Your task to perform on an android device: snooze an email in the gmail app Image 0: 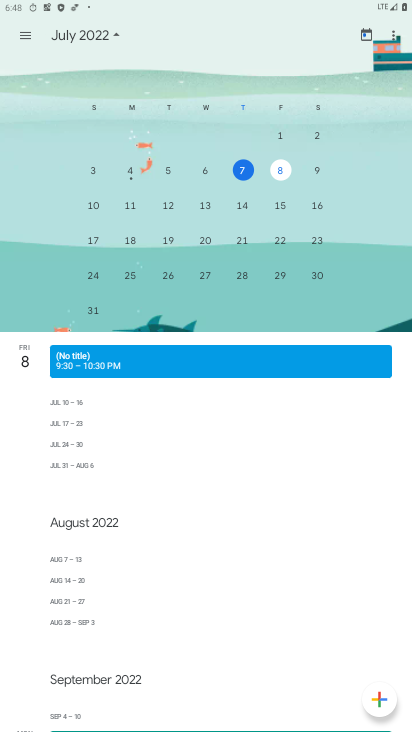
Step 0: drag from (364, 653) to (333, 322)
Your task to perform on an android device: snooze an email in the gmail app Image 1: 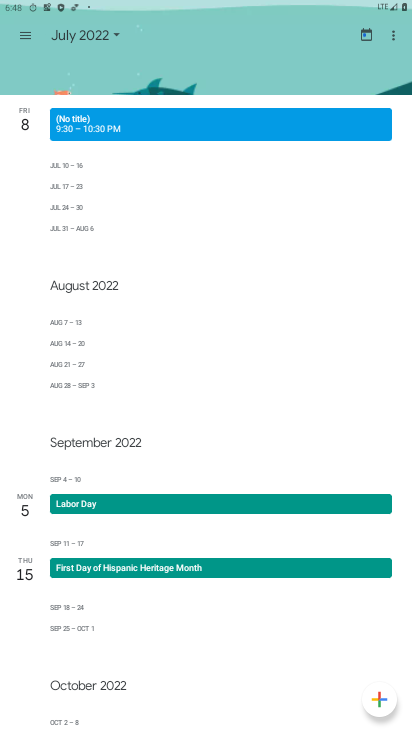
Step 1: press home button
Your task to perform on an android device: snooze an email in the gmail app Image 2: 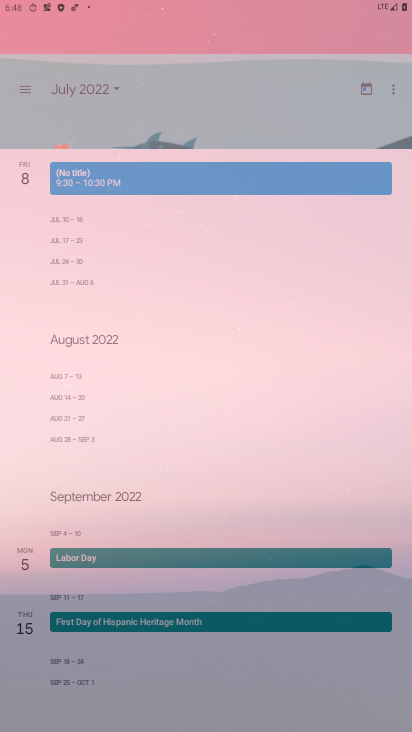
Step 2: drag from (273, 661) to (180, 13)
Your task to perform on an android device: snooze an email in the gmail app Image 3: 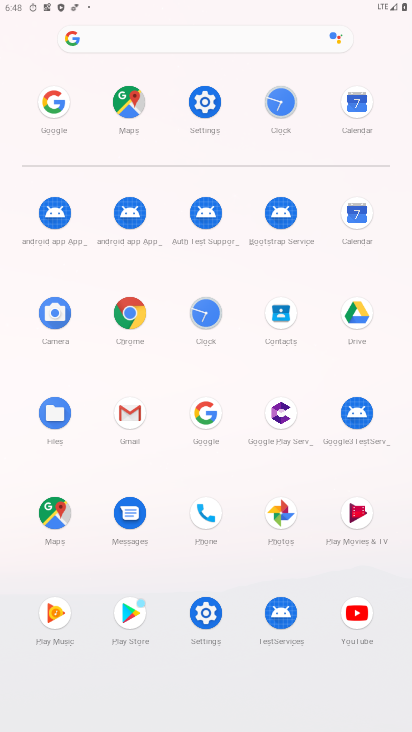
Step 3: click (121, 415)
Your task to perform on an android device: snooze an email in the gmail app Image 4: 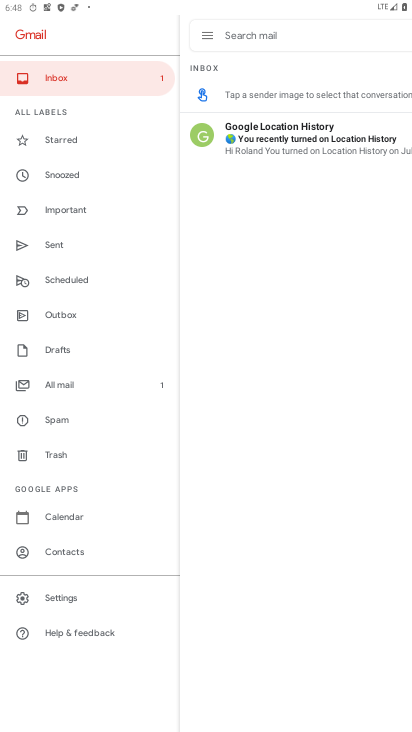
Step 4: click (372, 132)
Your task to perform on an android device: snooze an email in the gmail app Image 5: 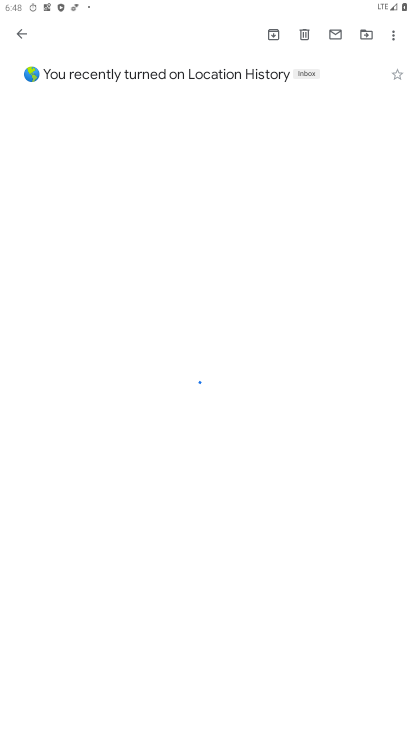
Step 5: click (392, 33)
Your task to perform on an android device: snooze an email in the gmail app Image 6: 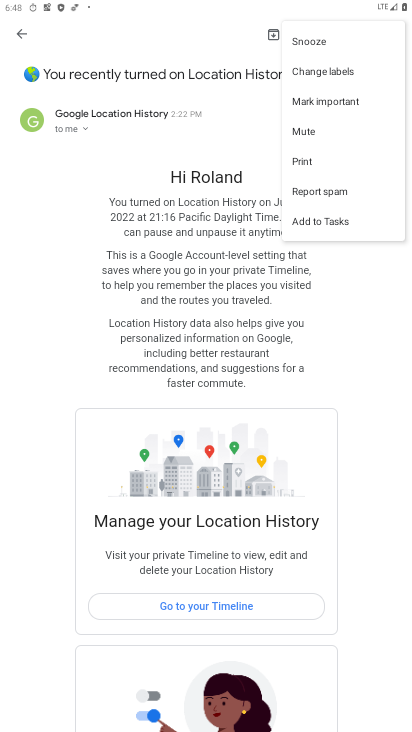
Step 6: click (318, 48)
Your task to perform on an android device: snooze an email in the gmail app Image 7: 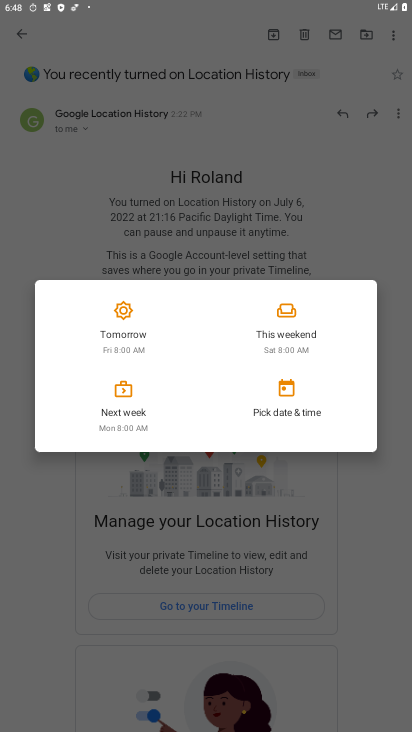
Step 7: click (290, 323)
Your task to perform on an android device: snooze an email in the gmail app Image 8: 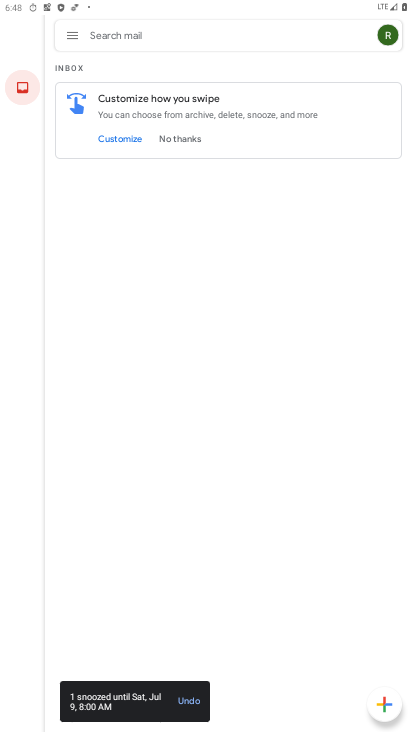
Step 8: task complete